Your task to perform on an android device: Show me the alarms in the clock app Image 0: 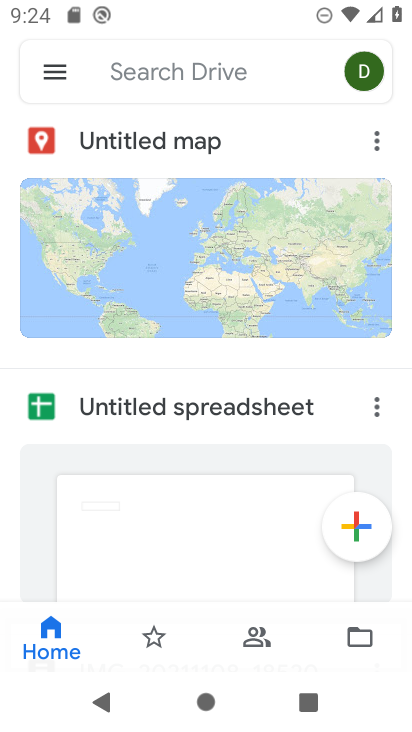
Step 0: press home button
Your task to perform on an android device: Show me the alarms in the clock app Image 1: 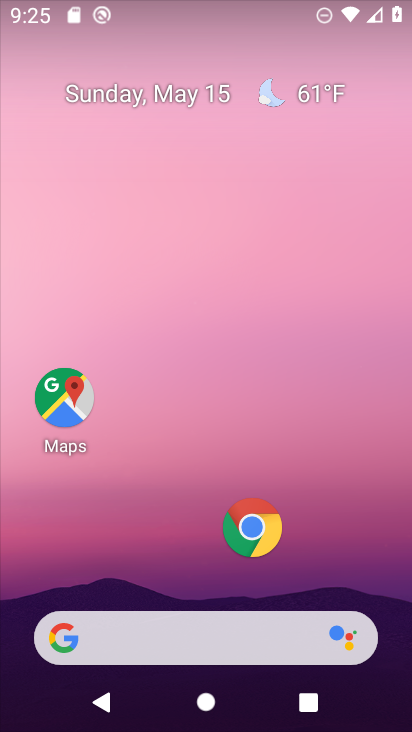
Step 1: drag from (201, 581) to (227, 50)
Your task to perform on an android device: Show me the alarms in the clock app Image 2: 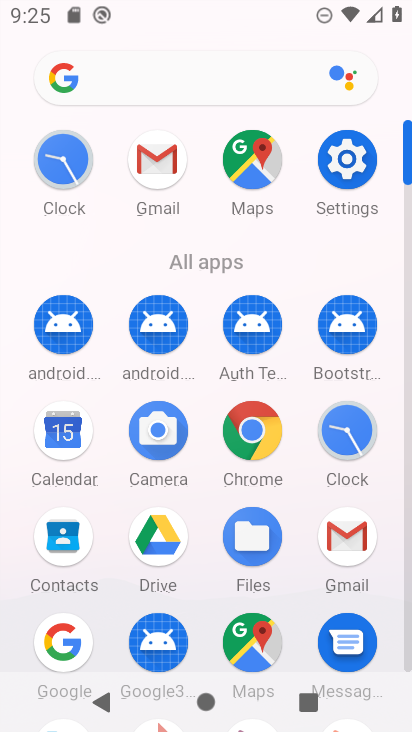
Step 2: click (344, 428)
Your task to perform on an android device: Show me the alarms in the clock app Image 3: 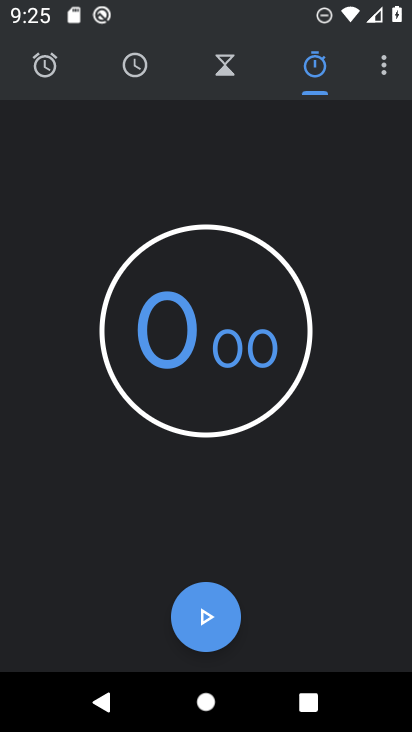
Step 3: click (56, 52)
Your task to perform on an android device: Show me the alarms in the clock app Image 4: 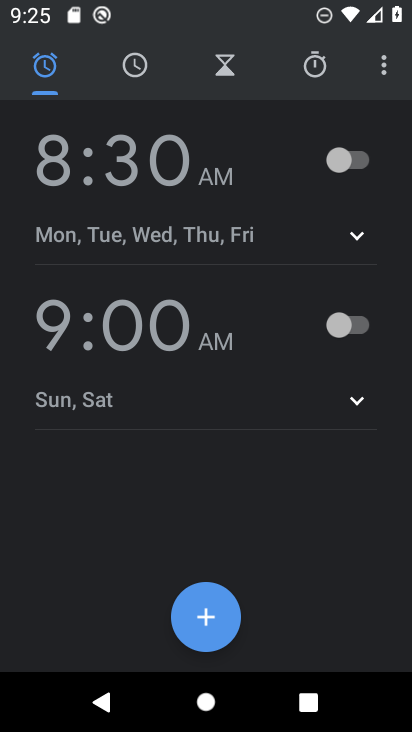
Step 4: task complete